Your task to perform on an android device: What's on my calendar tomorrow? Image 0: 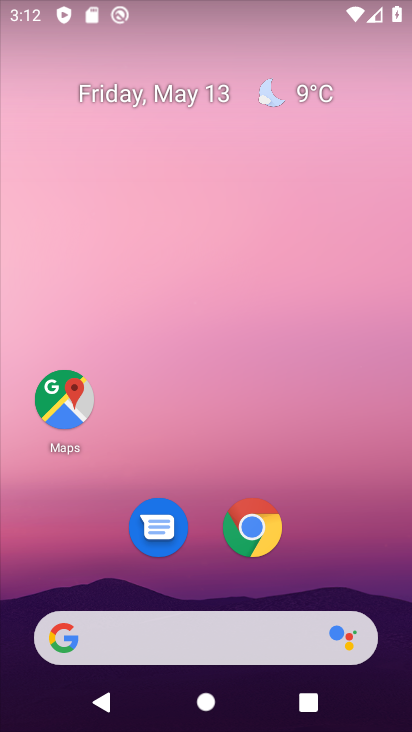
Step 0: drag from (274, 572) to (277, 201)
Your task to perform on an android device: What's on my calendar tomorrow? Image 1: 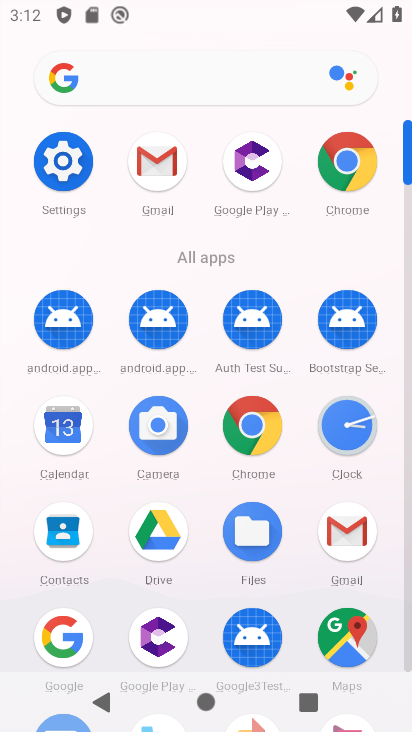
Step 1: click (68, 424)
Your task to perform on an android device: What's on my calendar tomorrow? Image 2: 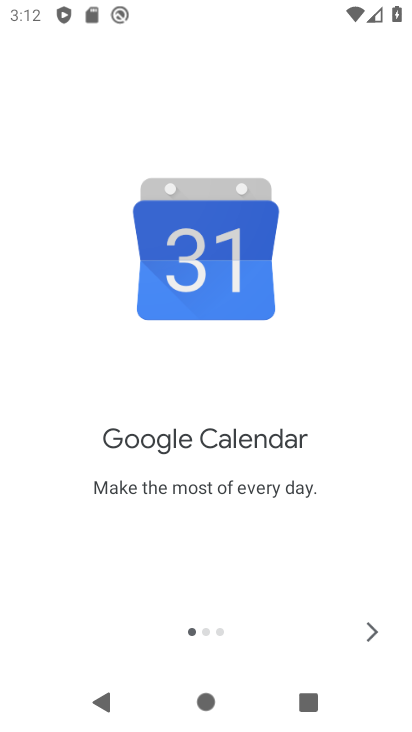
Step 2: click (386, 628)
Your task to perform on an android device: What's on my calendar tomorrow? Image 3: 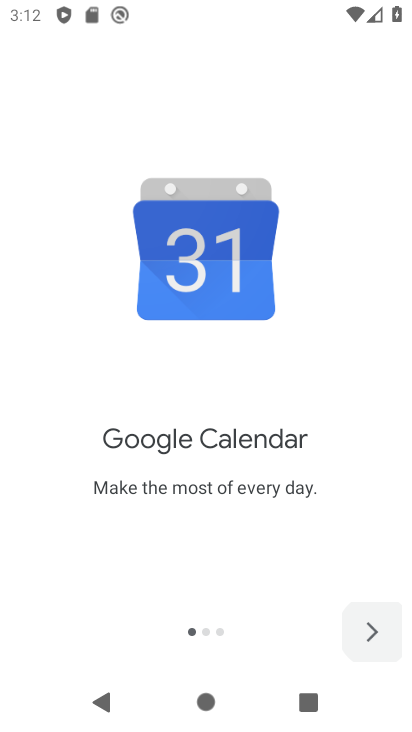
Step 3: click (384, 629)
Your task to perform on an android device: What's on my calendar tomorrow? Image 4: 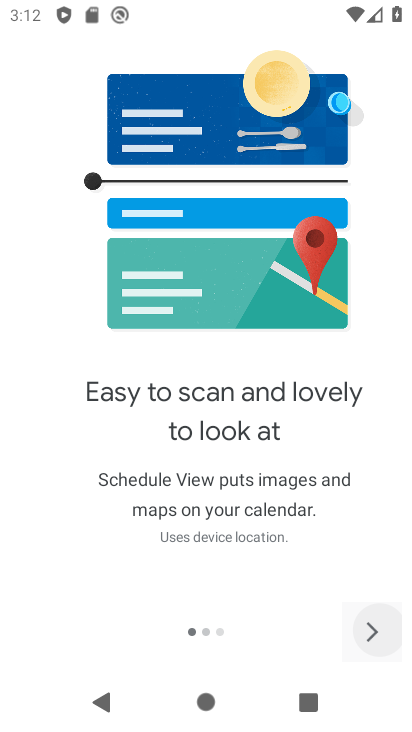
Step 4: click (384, 629)
Your task to perform on an android device: What's on my calendar tomorrow? Image 5: 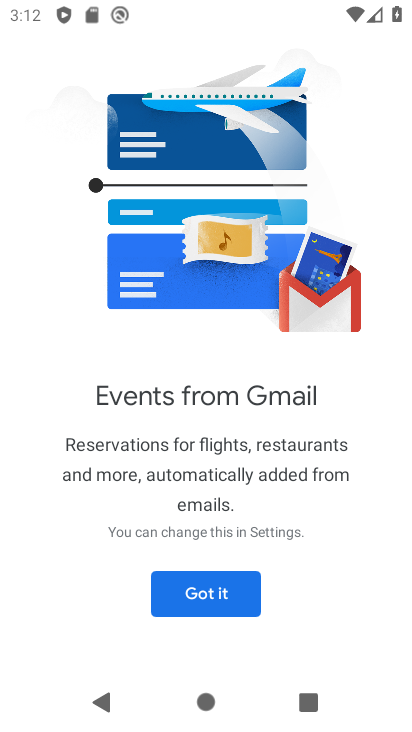
Step 5: click (207, 577)
Your task to perform on an android device: What's on my calendar tomorrow? Image 6: 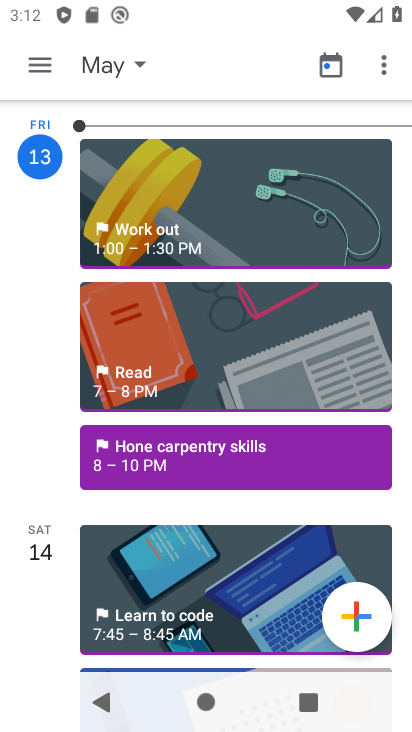
Step 6: task complete